Your task to perform on an android device: turn off airplane mode Image 0: 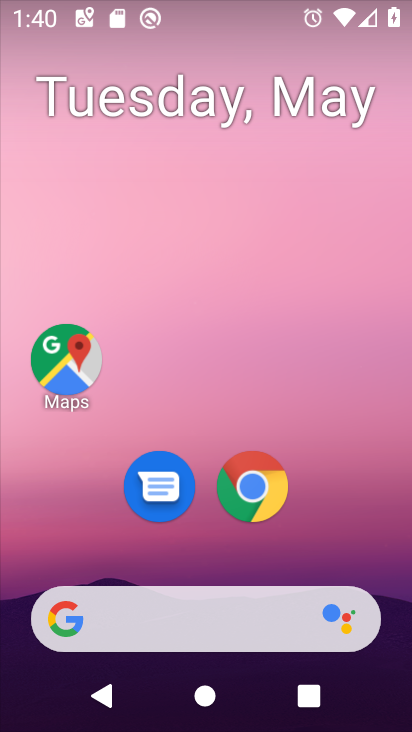
Step 0: drag from (367, 90) to (290, 464)
Your task to perform on an android device: turn off airplane mode Image 1: 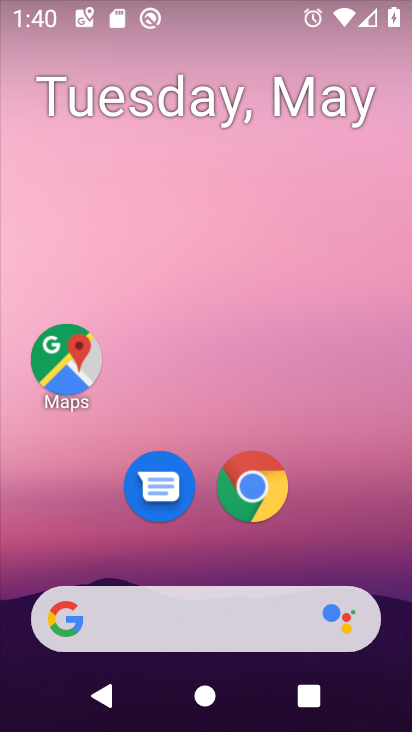
Step 1: drag from (368, 1) to (302, 648)
Your task to perform on an android device: turn off airplane mode Image 2: 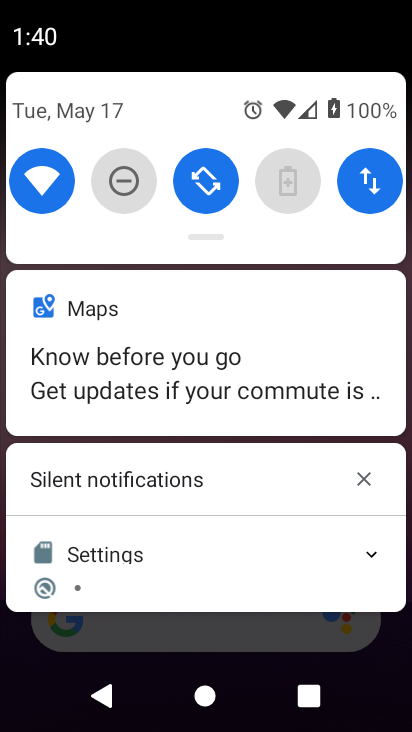
Step 2: drag from (302, 201) to (287, 570)
Your task to perform on an android device: turn off airplane mode Image 3: 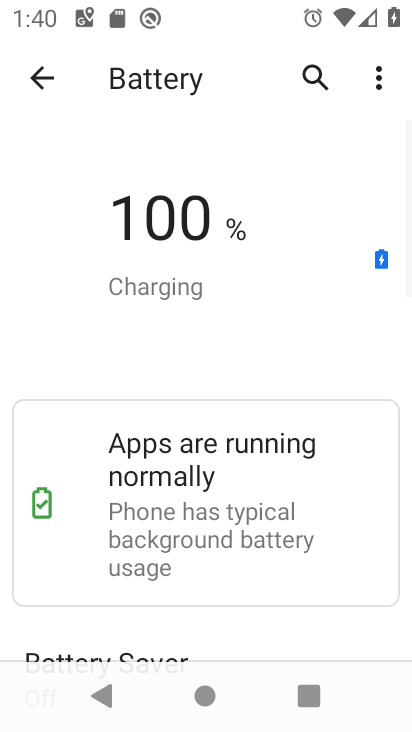
Step 3: press back button
Your task to perform on an android device: turn off airplane mode Image 4: 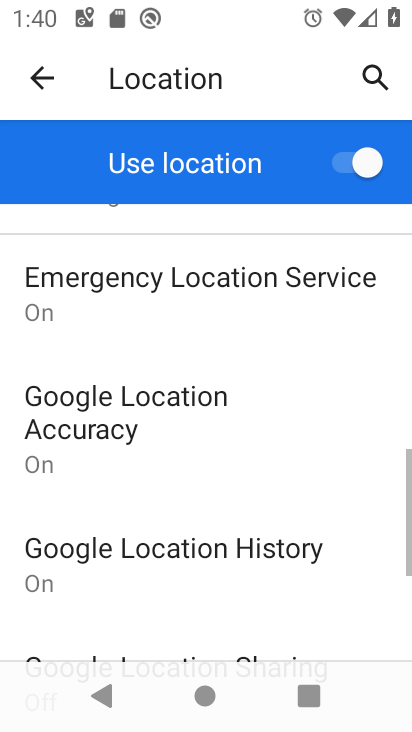
Step 4: press back button
Your task to perform on an android device: turn off airplane mode Image 5: 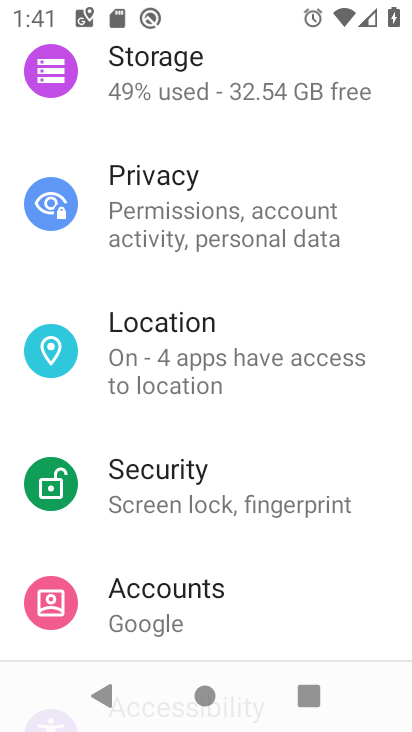
Step 5: drag from (279, 168) to (238, 664)
Your task to perform on an android device: turn off airplane mode Image 6: 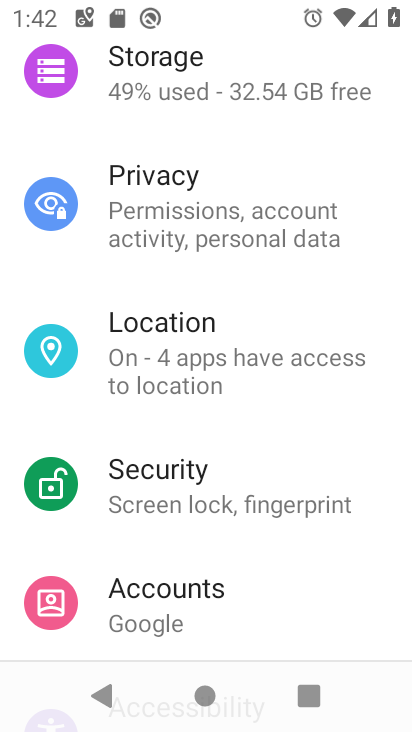
Step 6: drag from (138, 94) to (178, 636)
Your task to perform on an android device: turn off airplane mode Image 7: 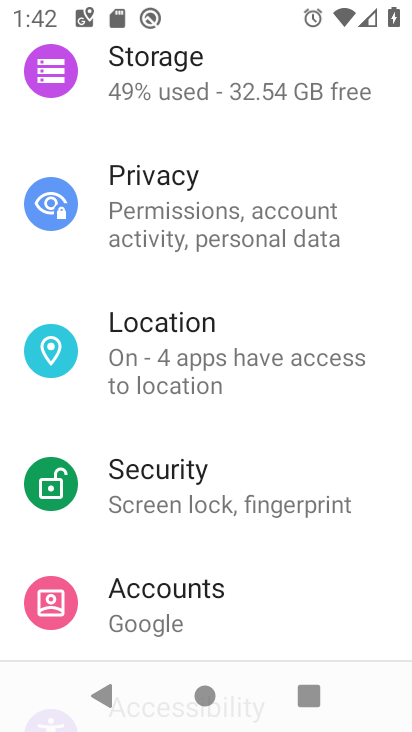
Step 7: drag from (186, 156) to (190, 643)
Your task to perform on an android device: turn off airplane mode Image 8: 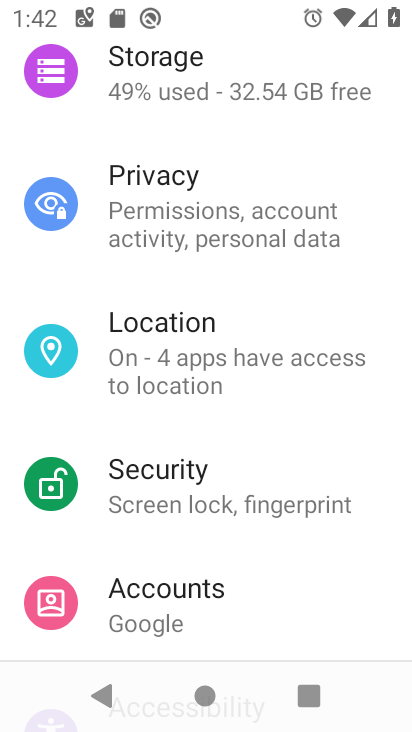
Step 8: drag from (159, 175) to (166, 515)
Your task to perform on an android device: turn off airplane mode Image 9: 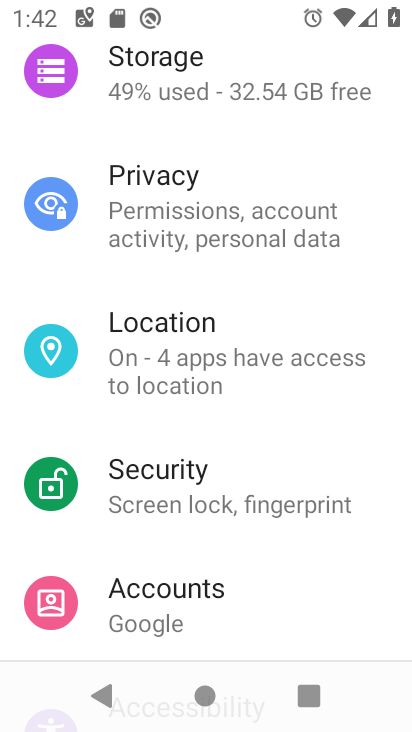
Step 9: drag from (170, 68) to (110, 655)
Your task to perform on an android device: turn off airplane mode Image 10: 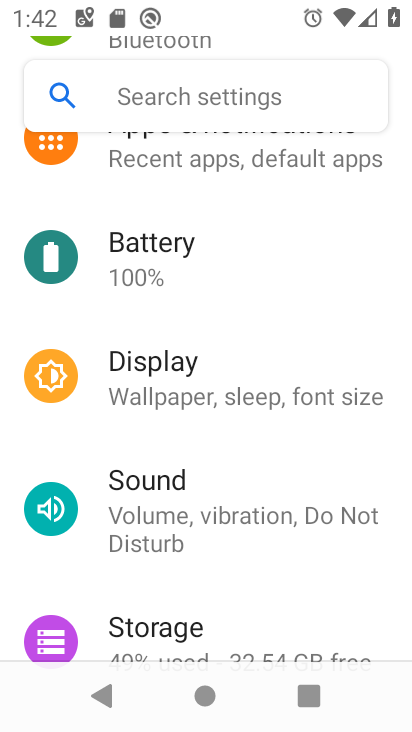
Step 10: drag from (194, 222) to (104, 656)
Your task to perform on an android device: turn off airplane mode Image 11: 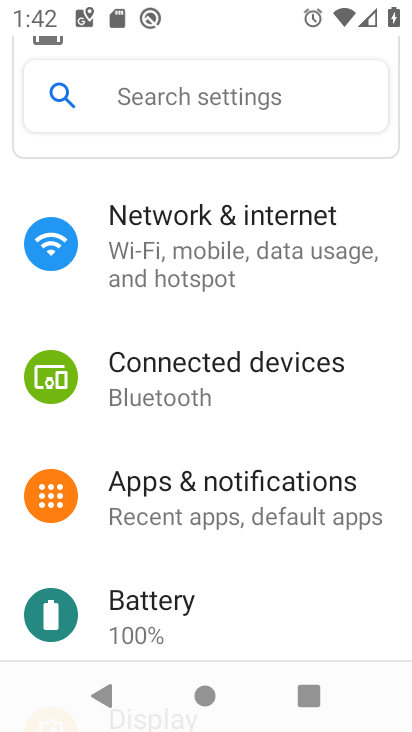
Step 11: click (215, 228)
Your task to perform on an android device: turn off airplane mode Image 12: 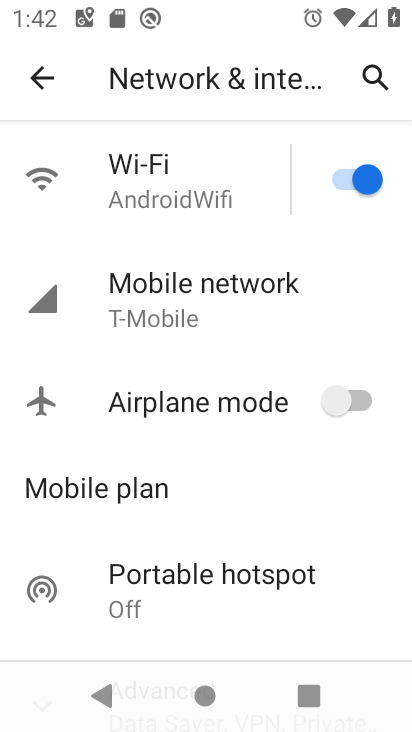
Step 12: task complete